Your task to perform on an android device: change text size in settings app Image 0: 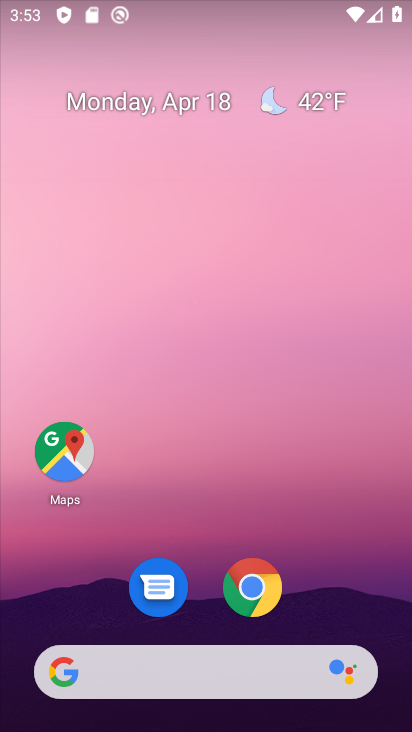
Step 0: drag from (221, 472) to (213, 6)
Your task to perform on an android device: change text size in settings app Image 1: 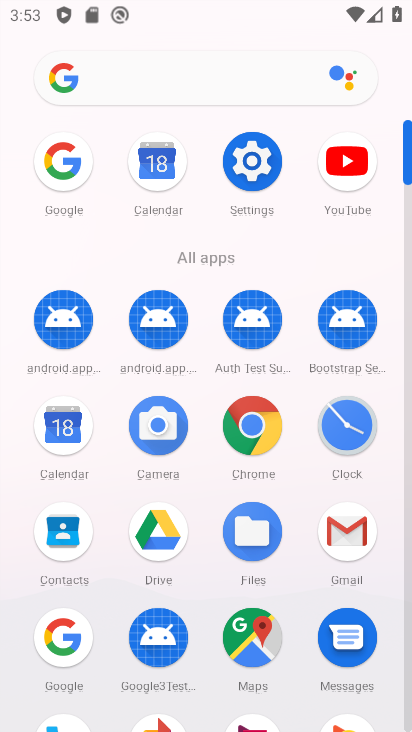
Step 1: click (251, 170)
Your task to perform on an android device: change text size in settings app Image 2: 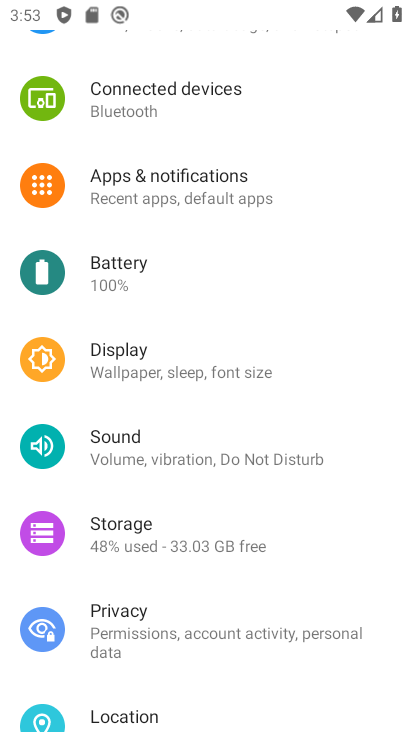
Step 2: click (208, 359)
Your task to perform on an android device: change text size in settings app Image 3: 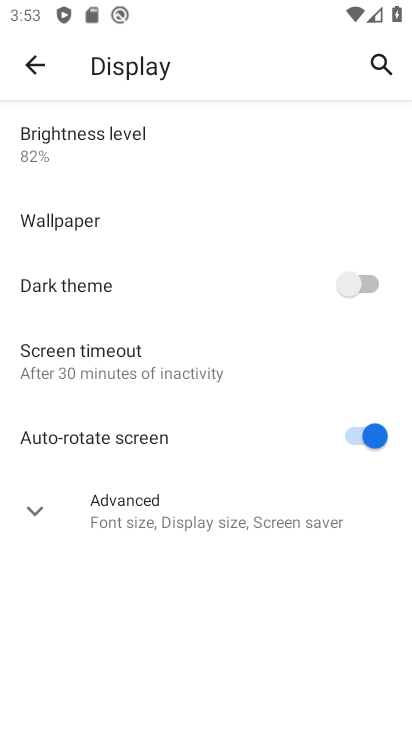
Step 3: click (147, 503)
Your task to perform on an android device: change text size in settings app Image 4: 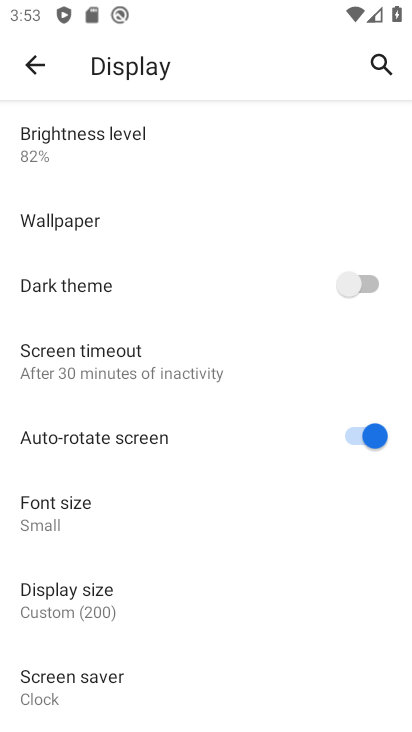
Step 4: click (112, 525)
Your task to perform on an android device: change text size in settings app Image 5: 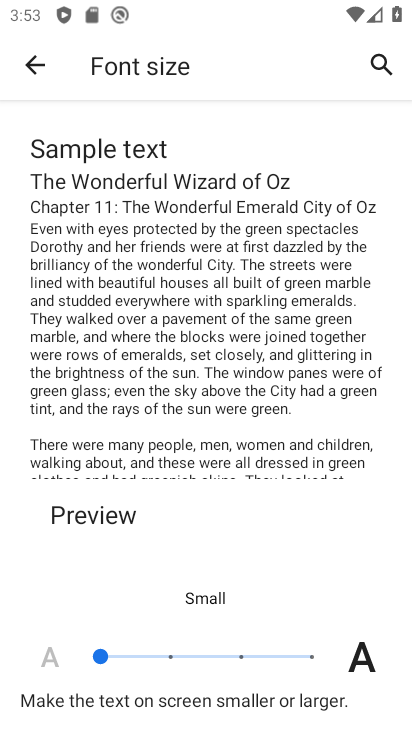
Step 5: click (158, 649)
Your task to perform on an android device: change text size in settings app Image 6: 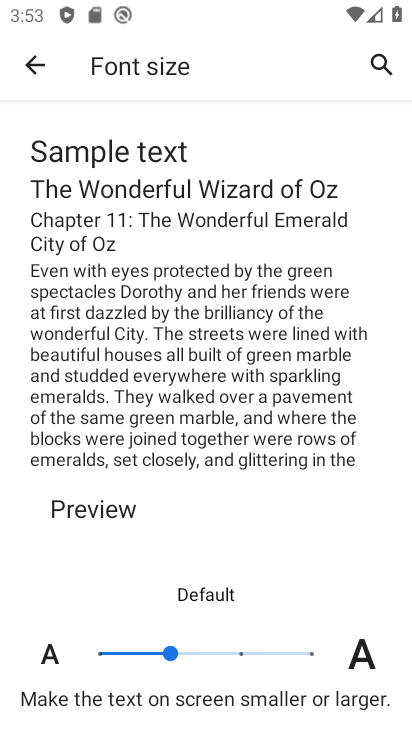
Step 6: task complete